Your task to perform on an android device: Open location settings Image 0: 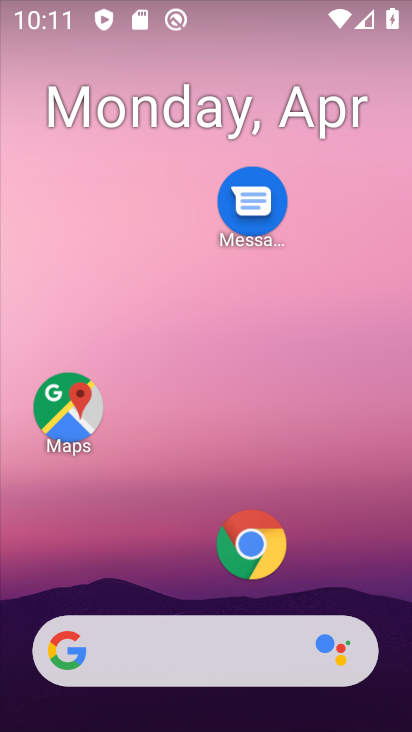
Step 0: press home button
Your task to perform on an android device: Open location settings Image 1: 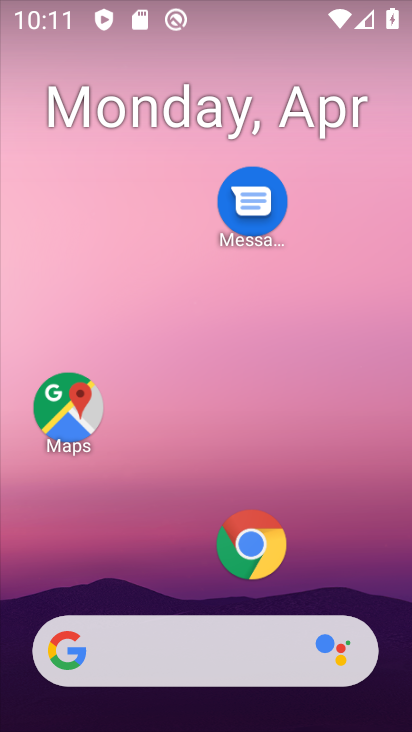
Step 1: drag from (198, 559) to (226, 36)
Your task to perform on an android device: Open location settings Image 2: 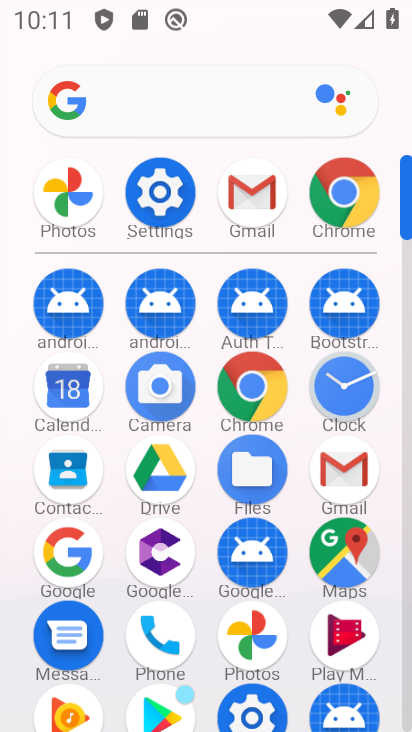
Step 2: click (155, 190)
Your task to perform on an android device: Open location settings Image 3: 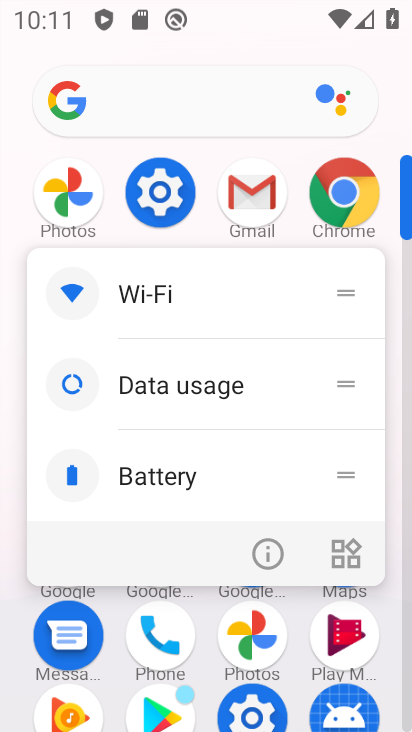
Step 3: click (163, 187)
Your task to perform on an android device: Open location settings Image 4: 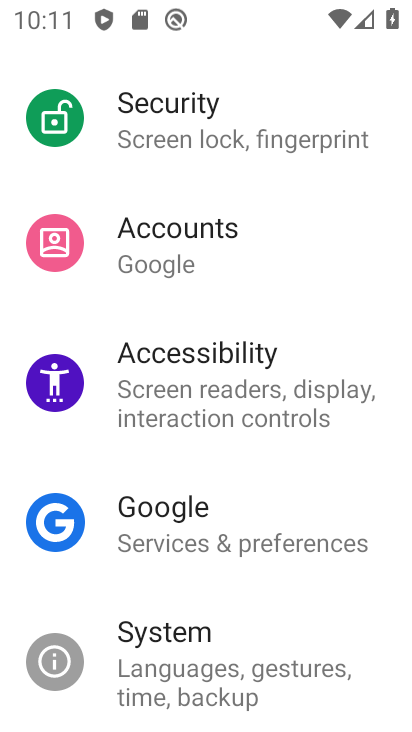
Step 4: drag from (196, 120) to (251, 532)
Your task to perform on an android device: Open location settings Image 5: 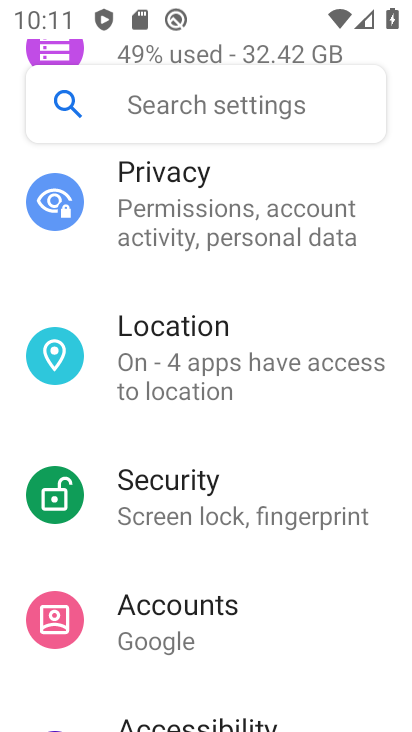
Step 5: click (222, 348)
Your task to perform on an android device: Open location settings Image 6: 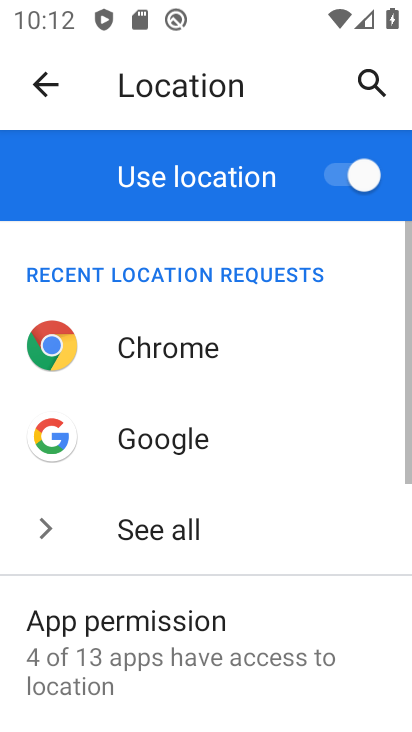
Step 6: drag from (225, 642) to (225, 229)
Your task to perform on an android device: Open location settings Image 7: 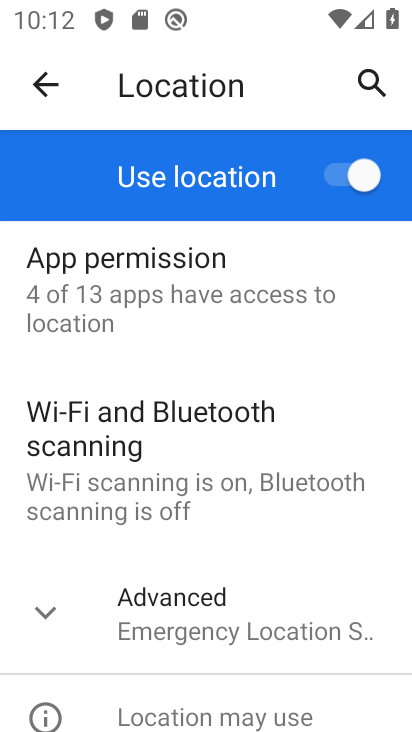
Step 7: click (48, 608)
Your task to perform on an android device: Open location settings Image 8: 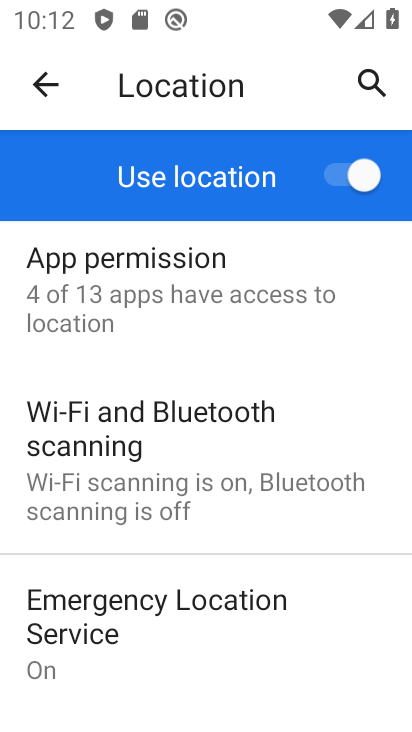
Step 8: task complete